Your task to perform on an android device: When is my next appointment? Image 0: 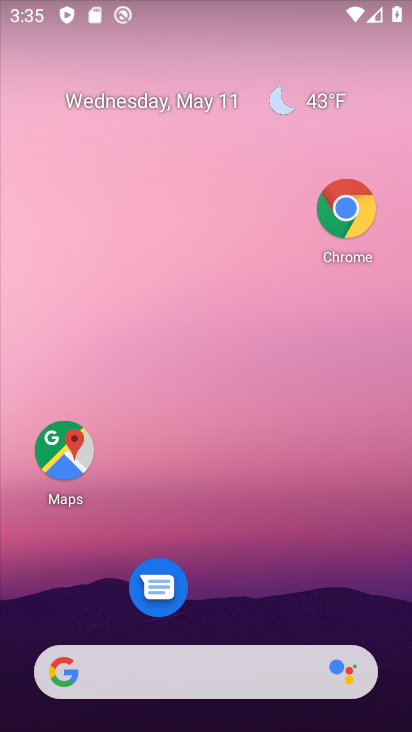
Step 0: drag from (262, 566) to (152, 45)
Your task to perform on an android device: When is my next appointment? Image 1: 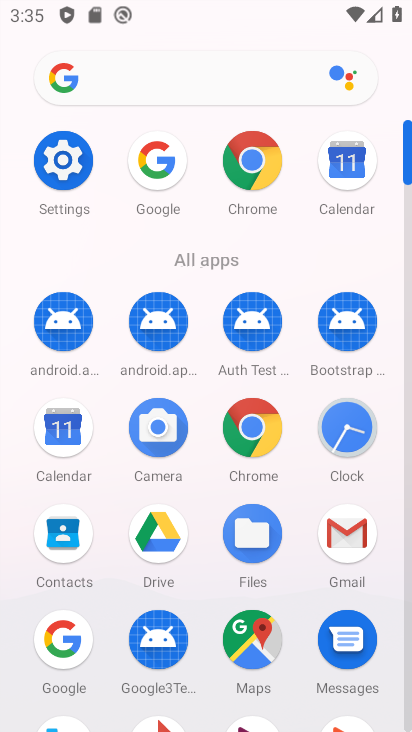
Step 1: click (73, 446)
Your task to perform on an android device: When is my next appointment? Image 2: 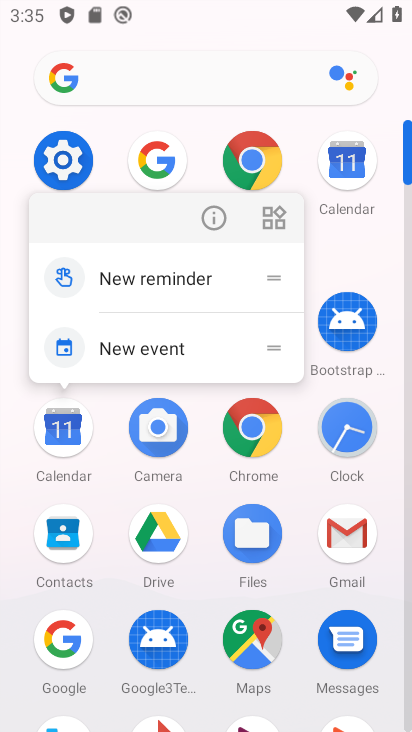
Step 2: click (74, 443)
Your task to perform on an android device: When is my next appointment? Image 3: 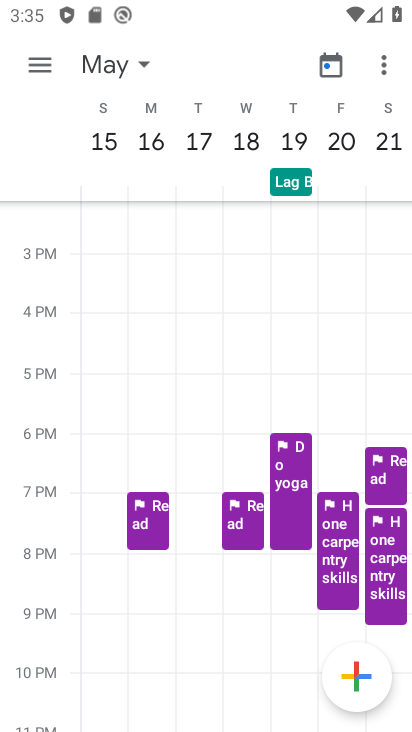
Step 3: task complete